Your task to perform on an android device: Open the phone app and click the voicemail tab. Image 0: 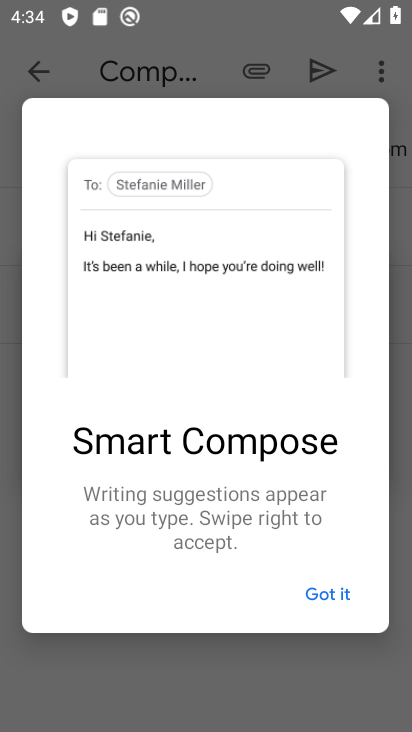
Step 0: press back button
Your task to perform on an android device: Open the phone app and click the voicemail tab. Image 1: 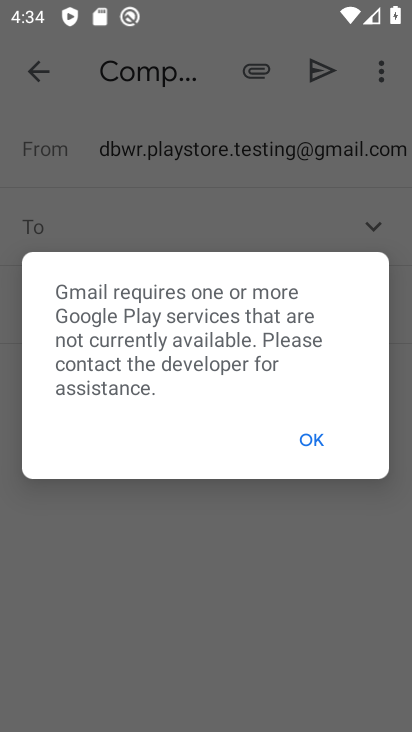
Step 1: press back button
Your task to perform on an android device: Open the phone app and click the voicemail tab. Image 2: 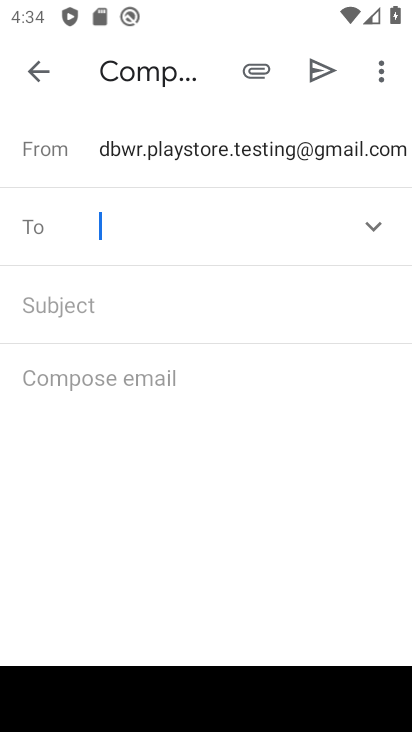
Step 2: press home button
Your task to perform on an android device: Open the phone app and click the voicemail tab. Image 3: 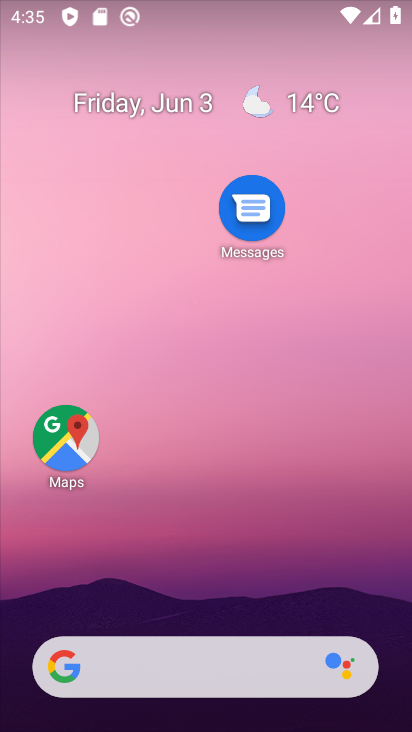
Step 3: drag from (221, 591) to (277, 338)
Your task to perform on an android device: Open the phone app and click the voicemail tab. Image 4: 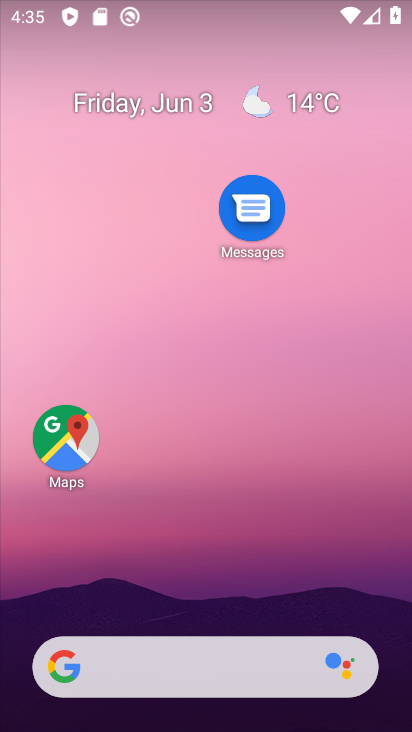
Step 4: drag from (196, 613) to (207, 159)
Your task to perform on an android device: Open the phone app and click the voicemail tab. Image 5: 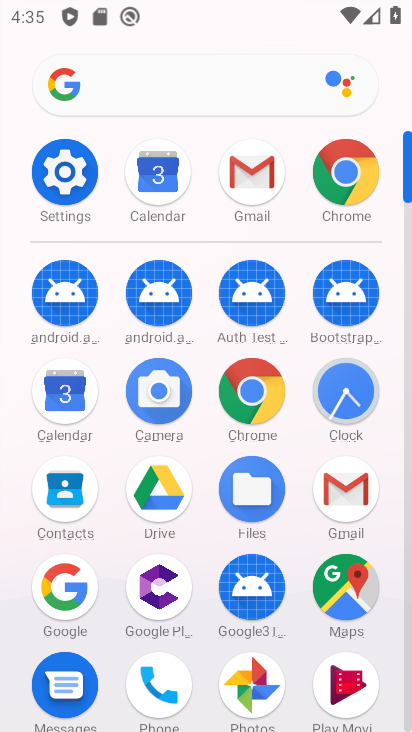
Step 5: click (159, 674)
Your task to perform on an android device: Open the phone app and click the voicemail tab. Image 6: 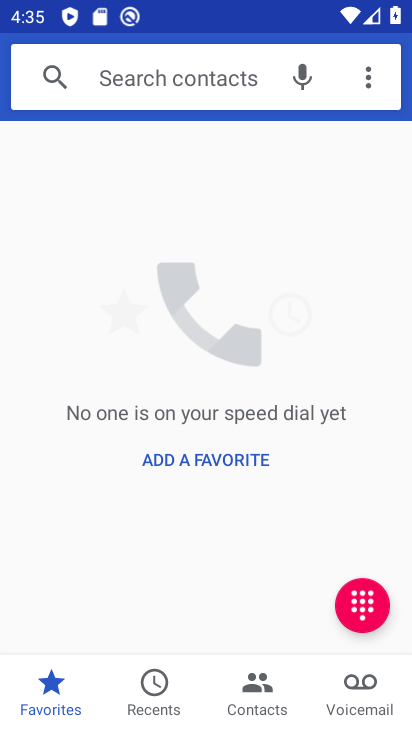
Step 6: click (356, 697)
Your task to perform on an android device: Open the phone app and click the voicemail tab. Image 7: 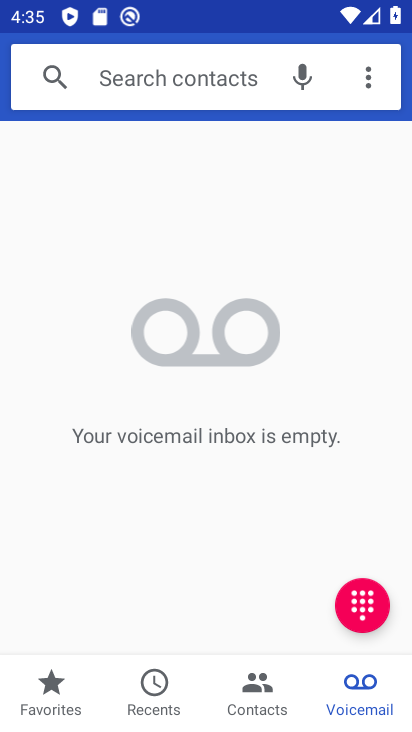
Step 7: task complete